Your task to perform on an android device: turn off improve location accuracy Image 0: 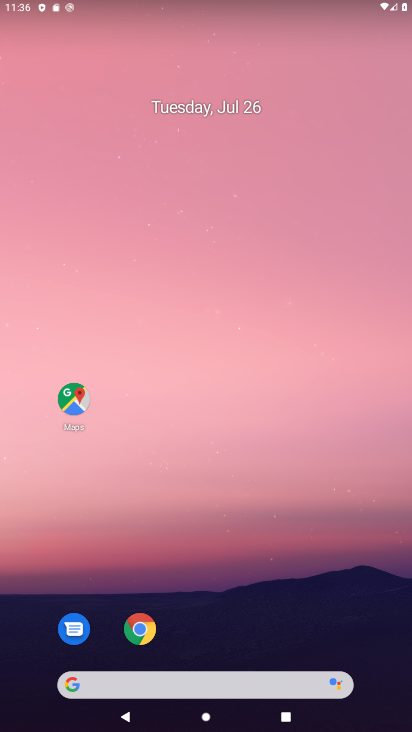
Step 0: drag from (248, 623) to (267, 181)
Your task to perform on an android device: turn off improve location accuracy Image 1: 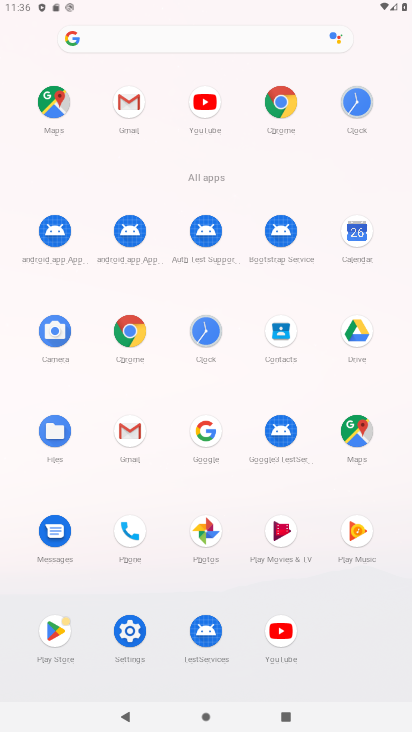
Step 1: click (135, 630)
Your task to perform on an android device: turn off improve location accuracy Image 2: 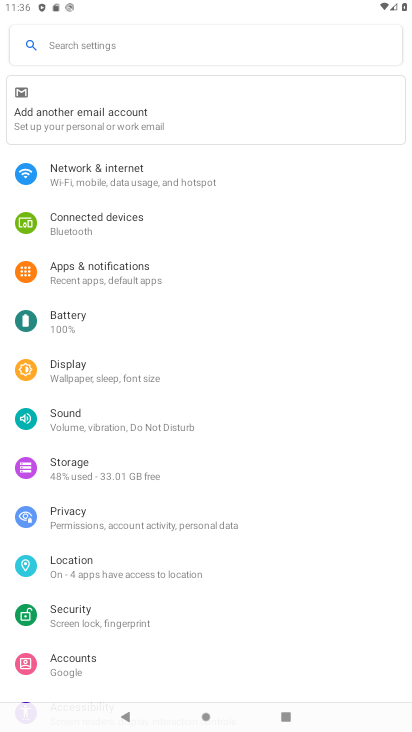
Step 2: click (77, 562)
Your task to perform on an android device: turn off improve location accuracy Image 3: 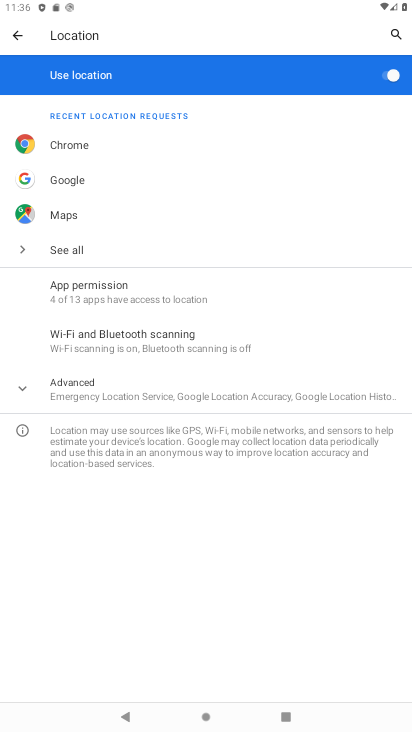
Step 3: click (88, 388)
Your task to perform on an android device: turn off improve location accuracy Image 4: 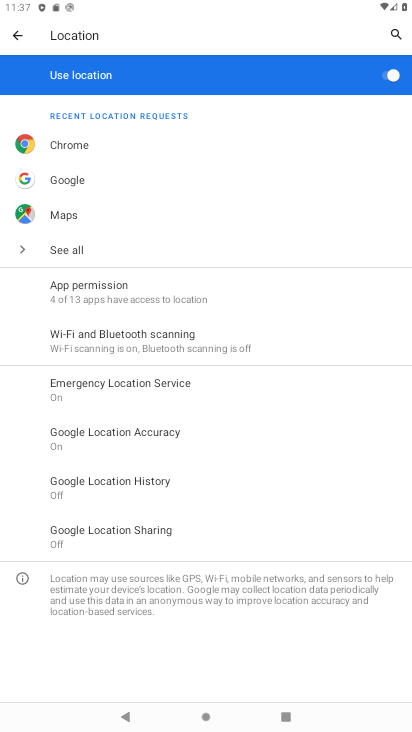
Step 4: click (128, 428)
Your task to perform on an android device: turn off improve location accuracy Image 5: 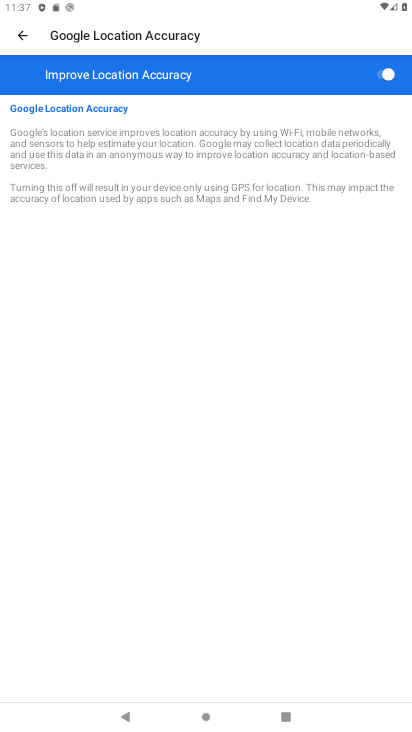
Step 5: click (385, 73)
Your task to perform on an android device: turn off improve location accuracy Image 6: 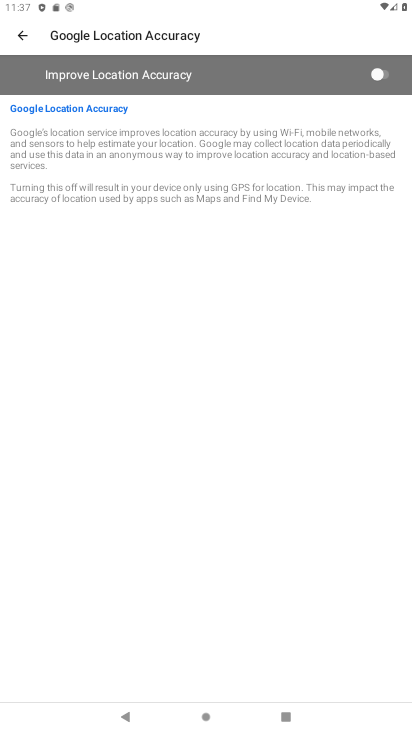
Step 6: task complete